Your task to perform on an android device: open a new tab in the chrome app Image 0: 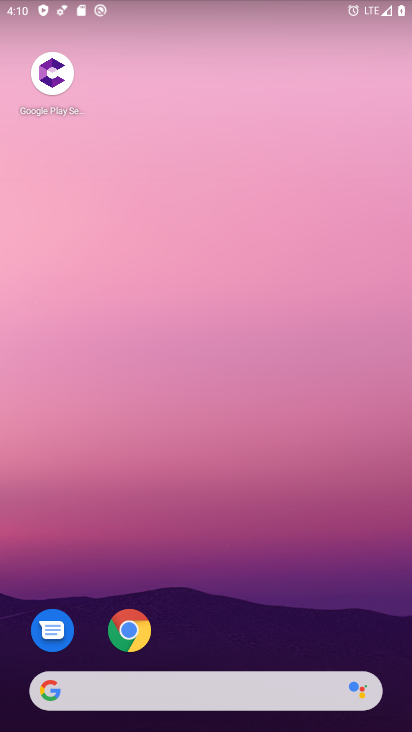
Step 0: drag from (252, 668) to (189, 155)
Your task to perform on an android device: open a new tab in the chrome app Image 1: 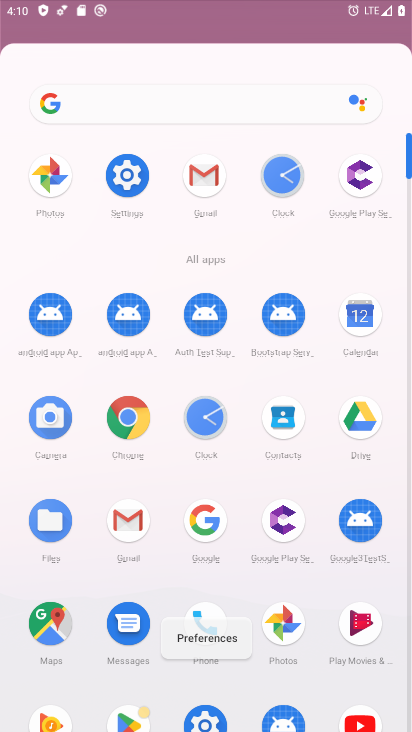
Step 1: drag from (260, 681) to (277, 205)
Your task to perform on an android device: open a new tab in the chrome app Image 2: 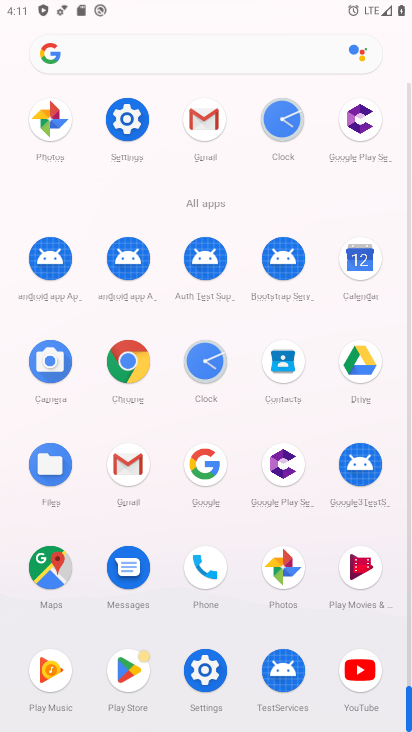
Step 2: click (131, 350)
Your task to perform on an android device: open a new tab in the chrome app Image 3: 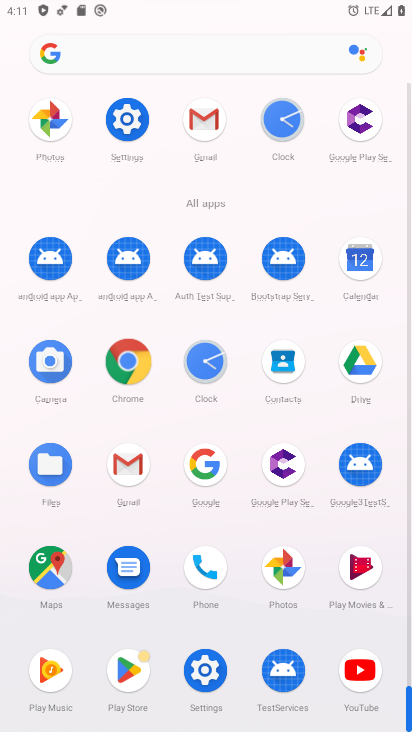
Step 3: click (133, 354)
Your task to perform on an android device: open a new tab in the chrome app Image 4: 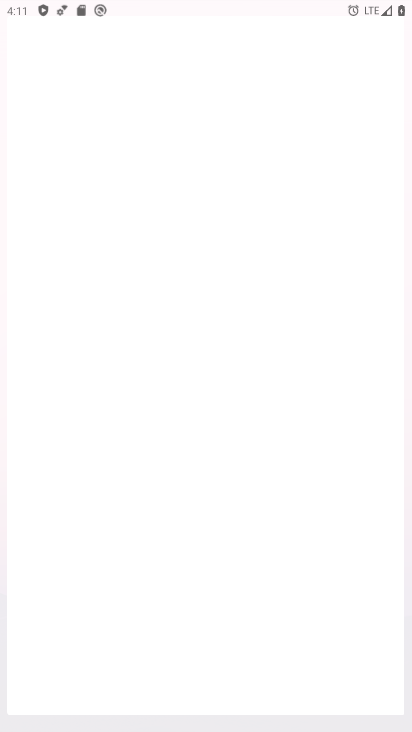
Step 4: click (136, 356)
Your task to perform on an android device: open a new tab in the chrome app Image 5: 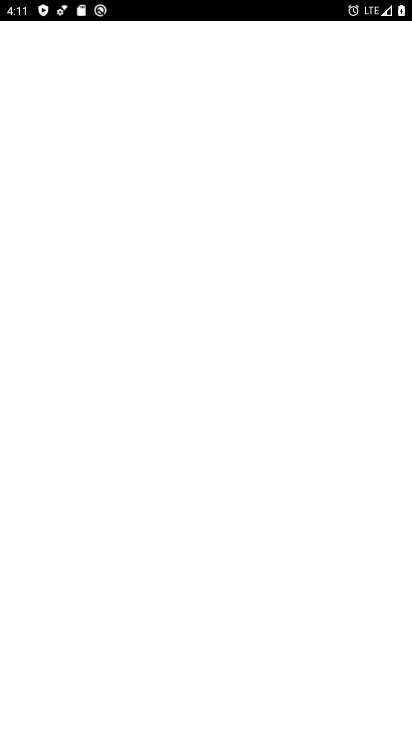
Step 5: click (139, 355)
Your task to perform on an android device: open a new tab in the chrome app Image 6: 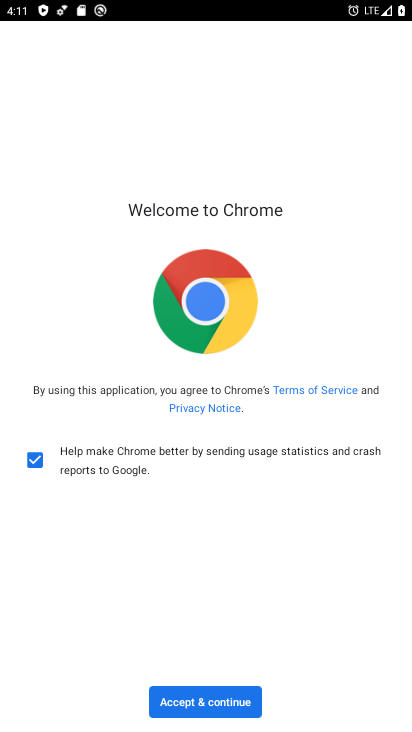
Step 6: click (227, 708)
Your task to perform on an android device: open a new tab in the chrome app Image 7: 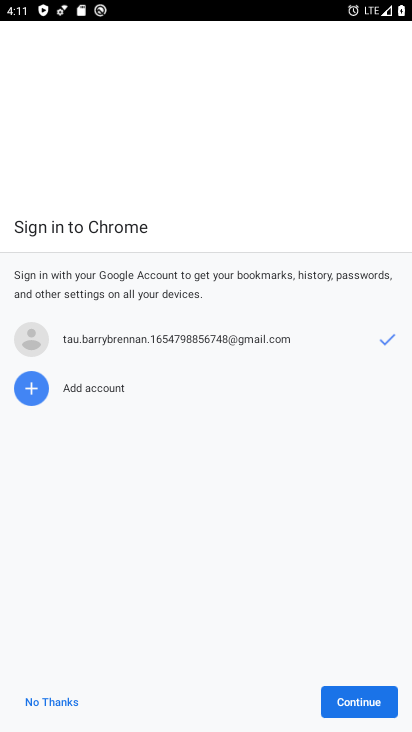
Step 7: click (227, 700)
Your task to perform on an android device: open a new tab in the chrome app Image 8: 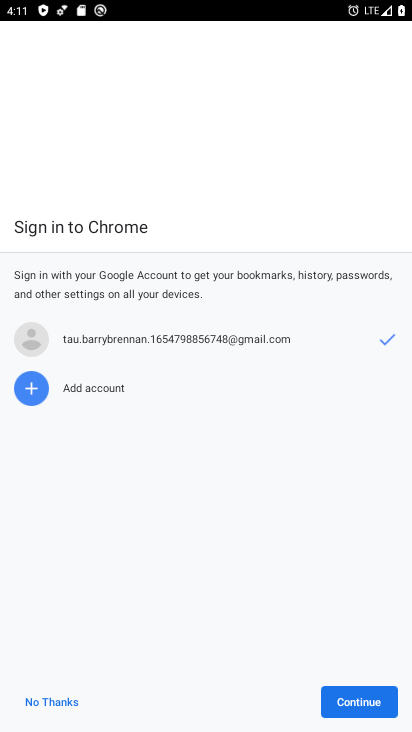
Step 8: click (231, 700)
Your task to perform on an android device: open a new tab in the chrome app Image 9: 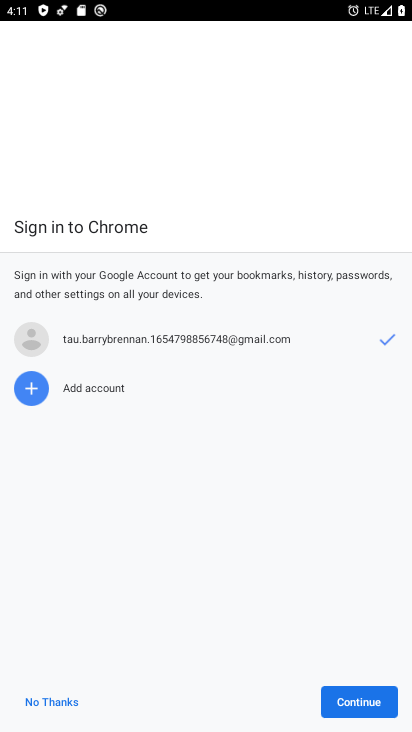
Step 9: click (346, 690)
Your task to perform on an android device: open a new tab in the chrome app Image 10: 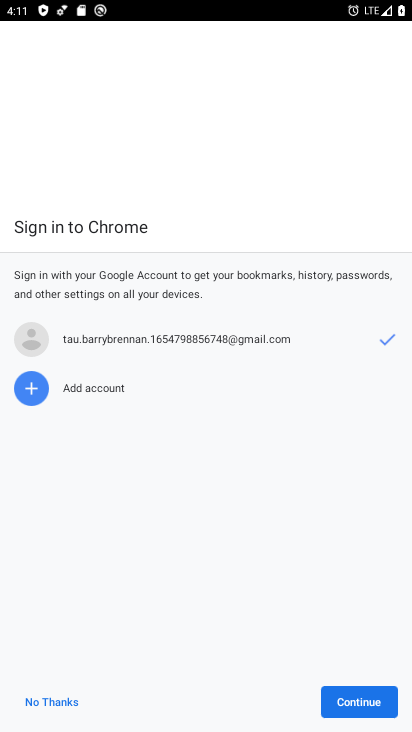
Step 10: click (346, 690)
Your task to perform on an android device: open a new tab in the chrome app Image 11: 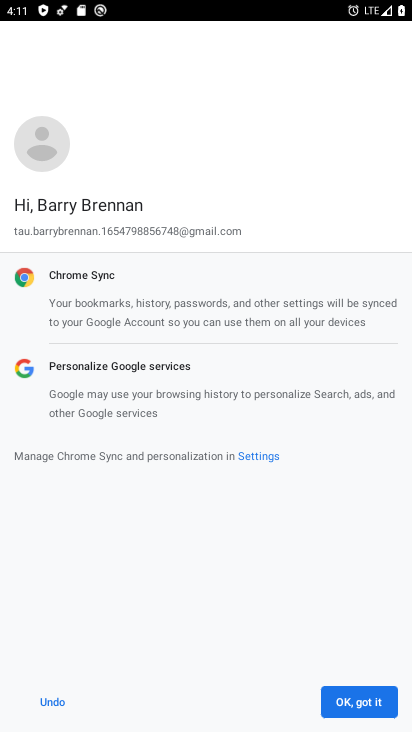
Step 11: click (348, 690)
Your task to perform on an android device: open a new tab in the chrome app Image 12: 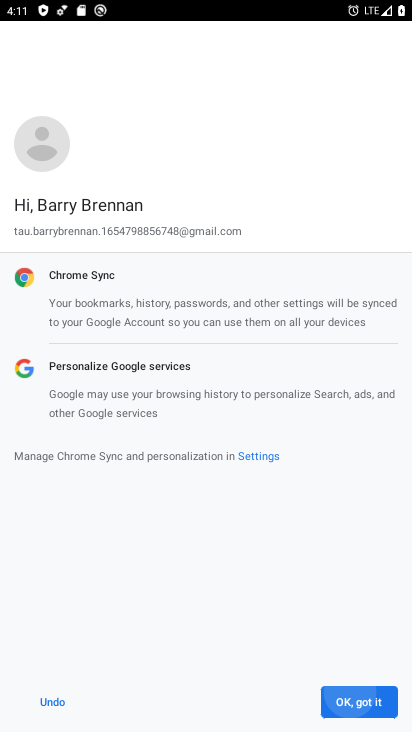
Step 12: click (356, 690)
Your task to perform on an android device: open a new tab in the chrome app Image 13: 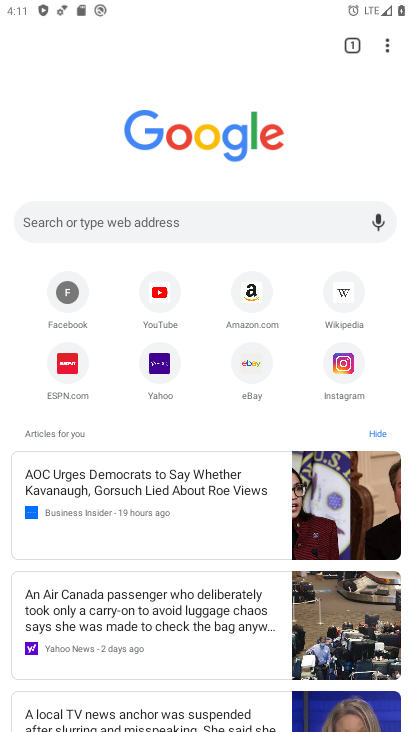
Step 13: click (114, 219)
Your task to perform on an android device: open a new tab in the chrome app Image 14: 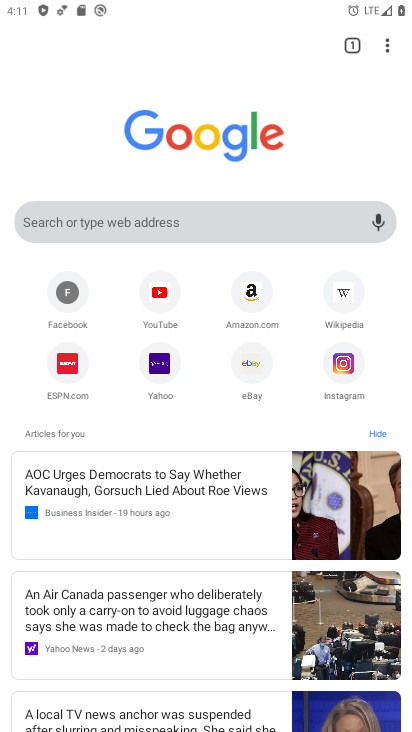
Step 14: click (114, 219)
Your task to perform on an android device: open a new tab in the chrome app Image 15: 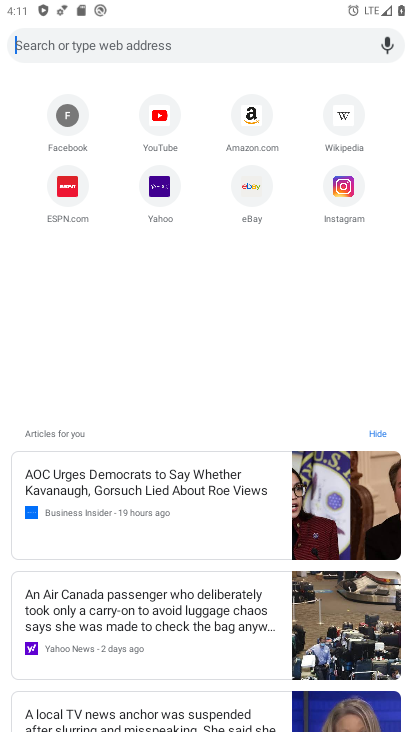
Step 15: click (117, 221)
Your task to perform on an android device: open a new tab in the chrome app Image 16: 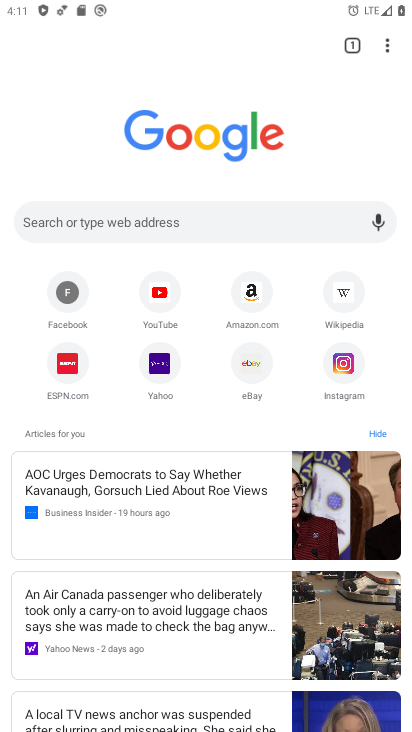
Step 16: click (105, 227)
Your task to perform on an android device: open a new tab in the chrome app Image 17: 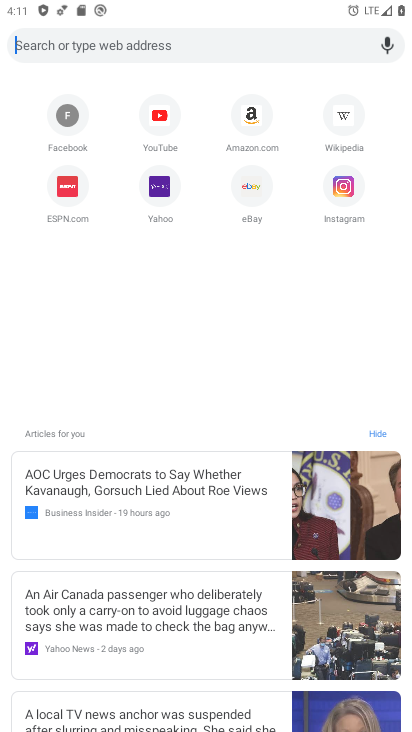
Step 17: click (104, 229)
Your task to perform on an android device: open a new tab in the chrome app Image 18: 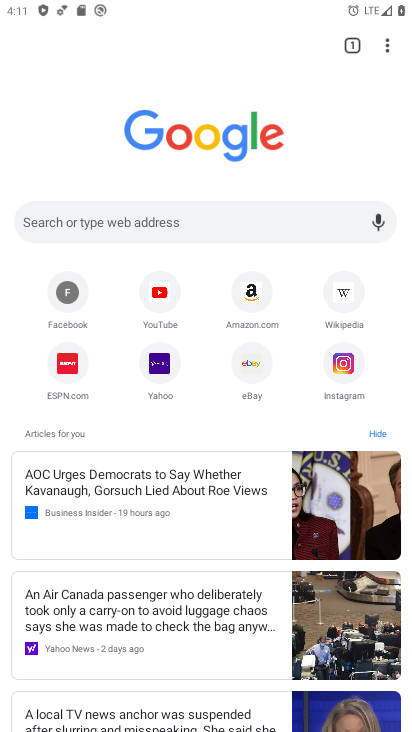
Step 18: drag from (389, 47) to (218, 82)
Your task to perform on an android device: open a new tab in the chrome app Image 19: 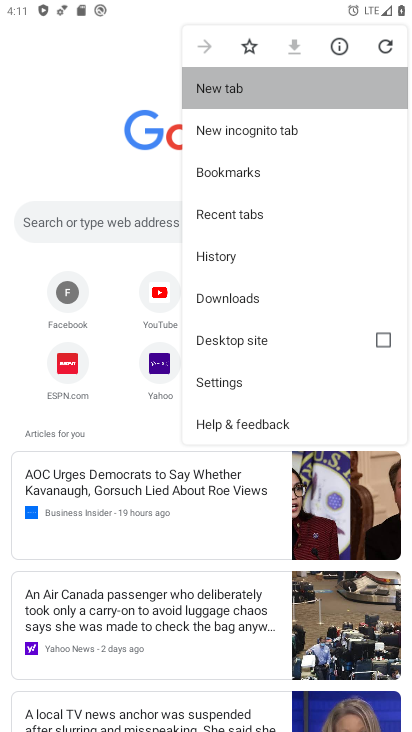
Step 19: click (218, 82)
Your task to perform on an android device: open a new tab in the chrome app Image 20: 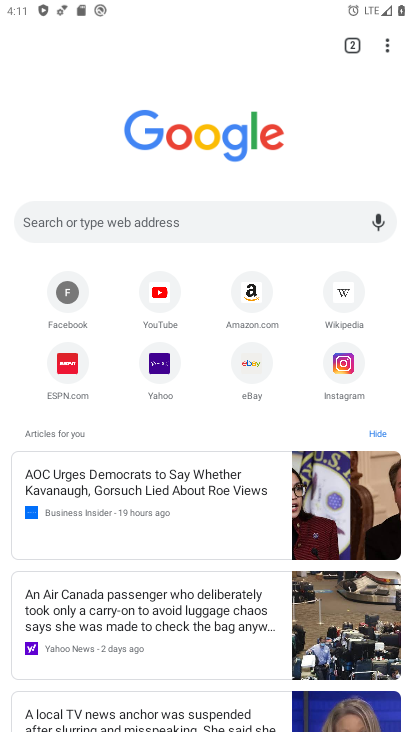
Step 20: task complete